Your task to perform on an android device: Open settings Image 0: 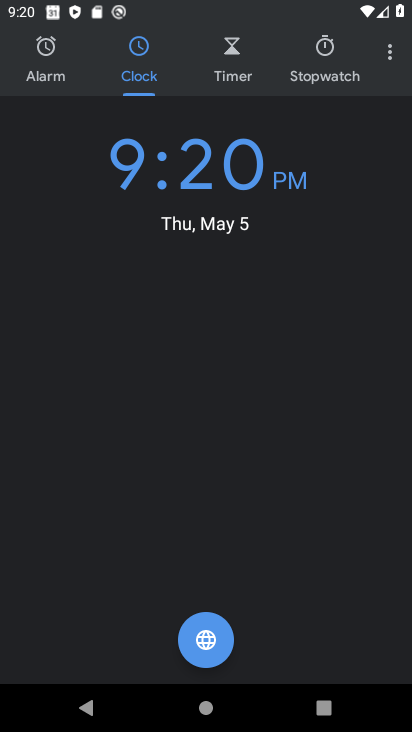
Step 0: press home button
Your task to perform on an android device: Open settings Image 1: 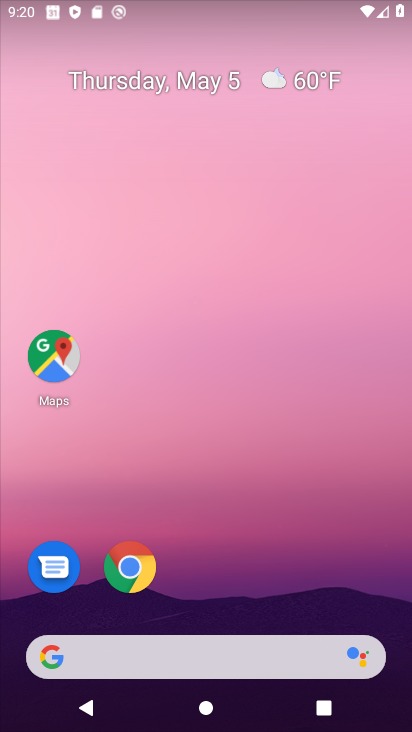
Step 1: drag from (225, 727) to (233, 217)
Your task to perform on an android device: Open settings Image 2: 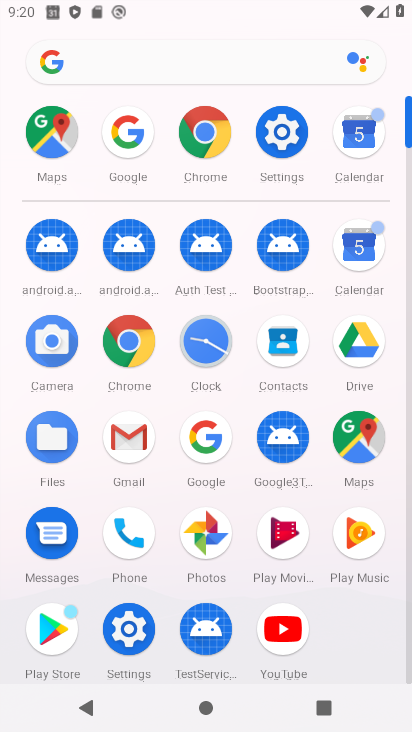
Step 2: click (287, 127)
Your task to perform on an android device: Open settings Image 3: 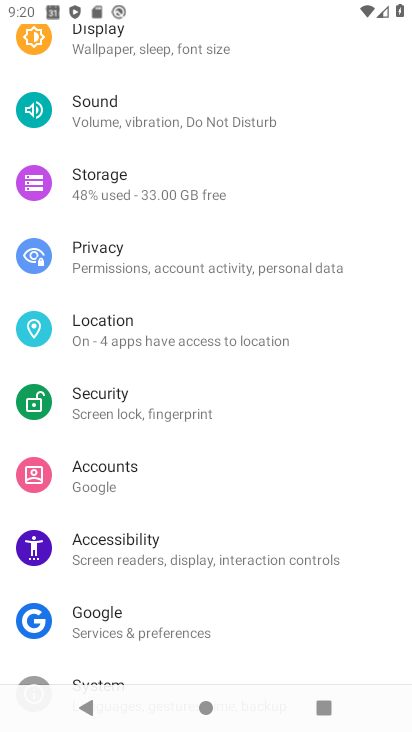
Step 3: task complete